Your task to perform on an android device: change alarm snooze length Image 0: 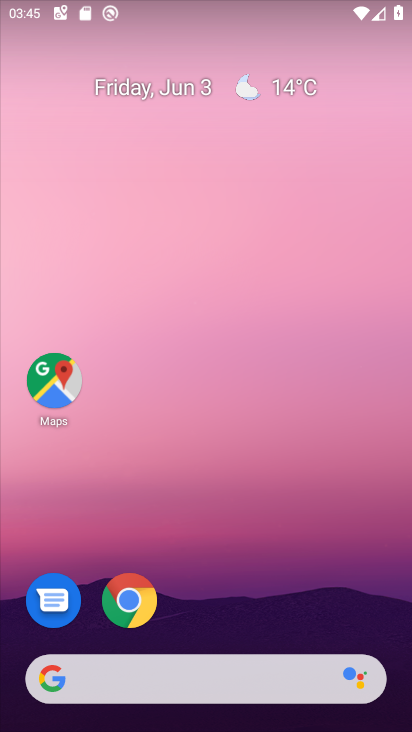
Step 0: drag from (293, 443) to (212, 63)
Your task to perform on an android device: change alarm snooze length Image 1: 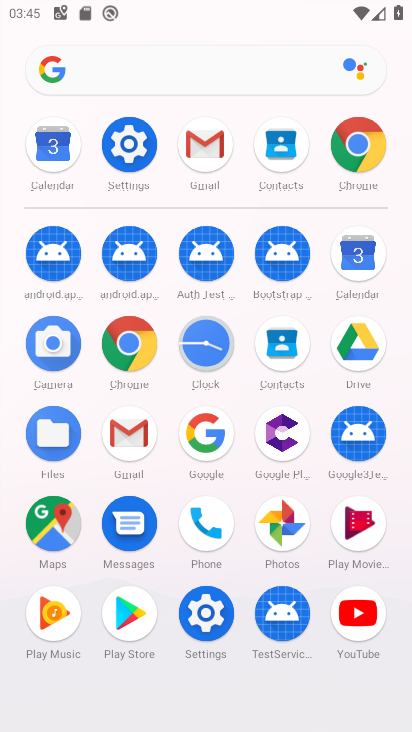
Step 1: click (202, 352)
Your task to perform on an android device: change alarm snooze length Image 2: 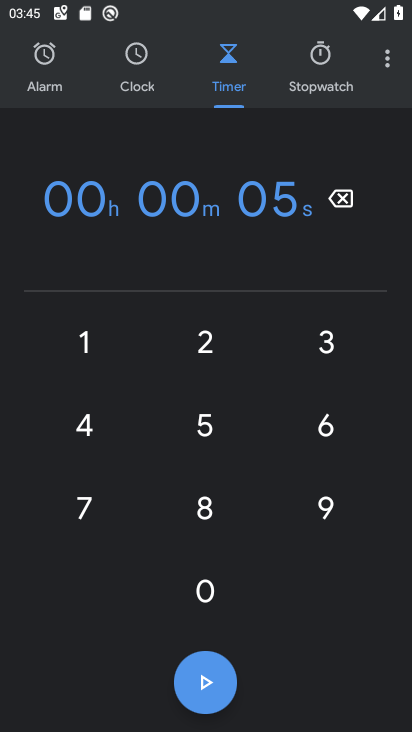
Step 2: drag from (382, 59) to (261, 106)
Your task to perform on an android device: change alarm snooze length Image 3: 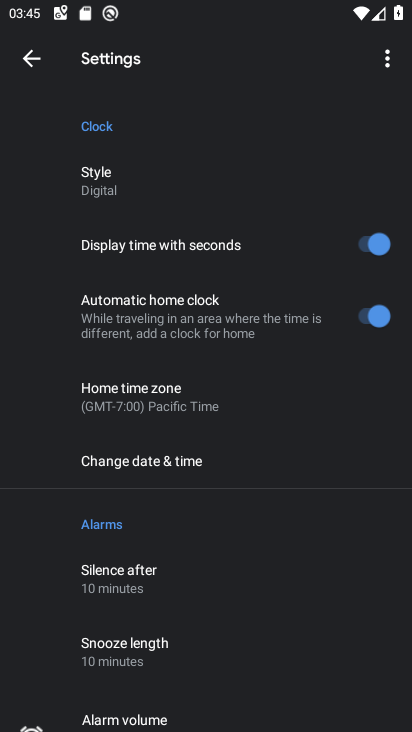
Step 3: drag from (234, 603) to (275, 128)
Your task to perform on an android device: change alarm snooze length Image 4: 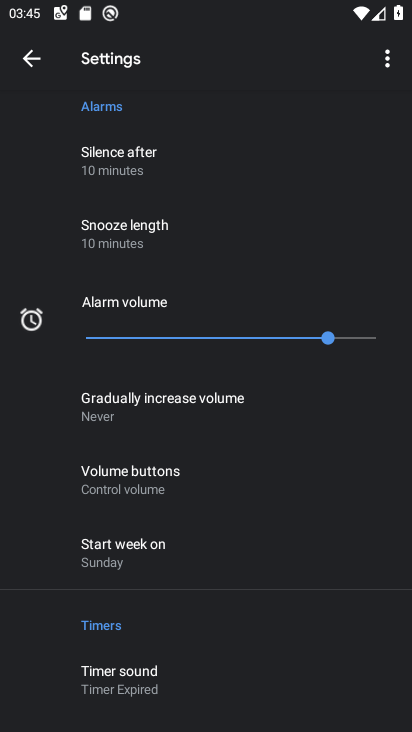
Step 4: click (154, 235)
Your task to perform on an android device: change alarm snooze length Image 5: 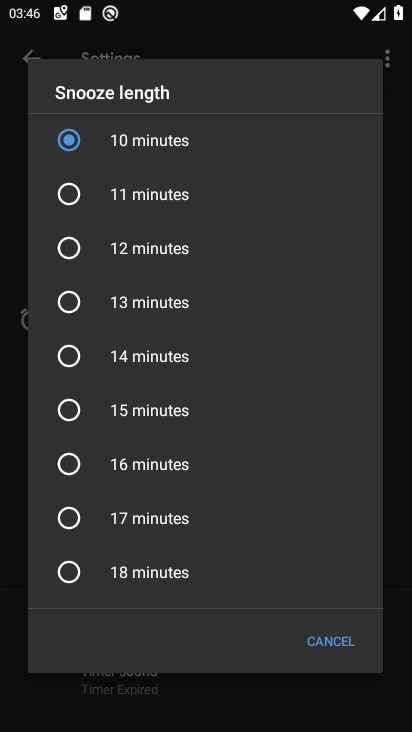
Step 5: click (131, 204)
Your task to perform on an android device: change alarm snooze length Image 6: 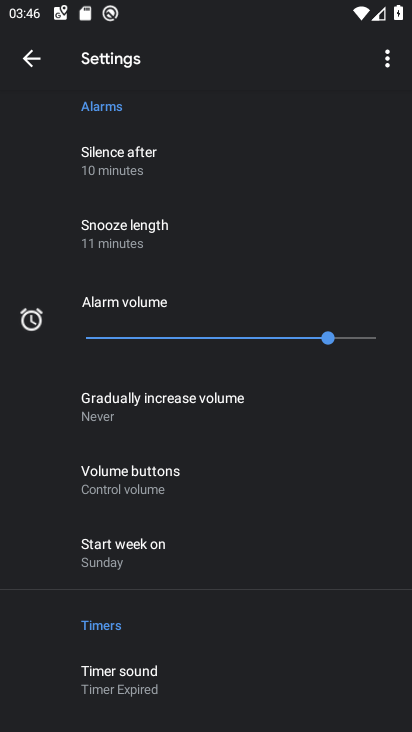
Step 6: task complete